Your task to perform on an android device: turn off priority inbox in the gmail app Image 0: 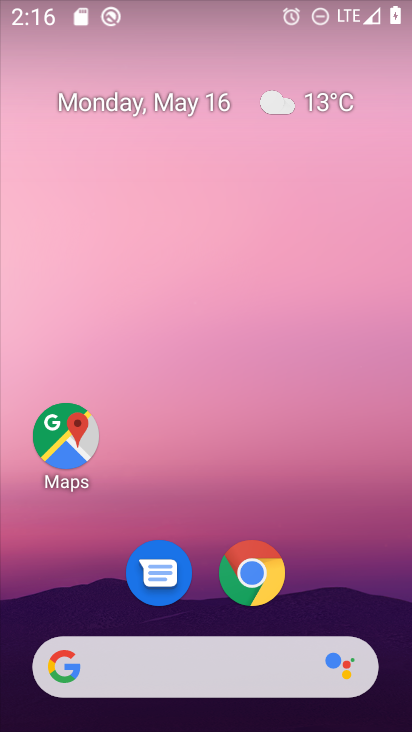
Step 0: drag from (190, 647) to (154, 306)
Your task to perform on an android device: turn off priority inbox in the gmail app Image 1: 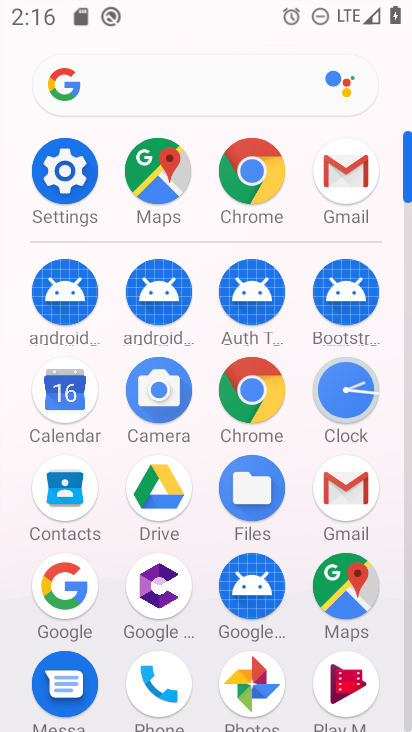
Step 1: click (323, 481)
Your task to perform on an android device: turn off priority inbox in the gmail app Image 2: 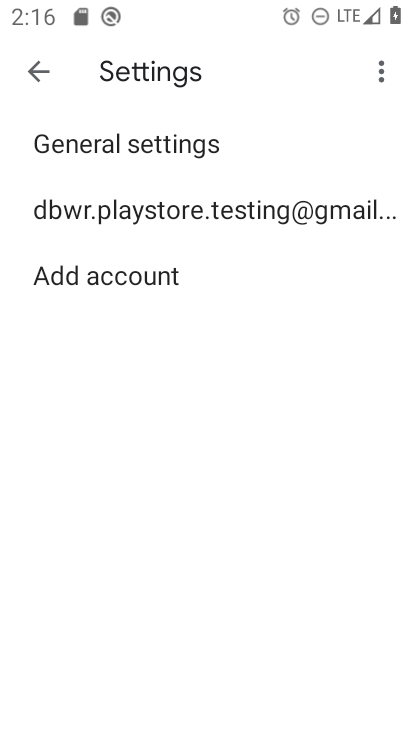
Step 2: click (168, 210)
Your task to perform on an android device: turn off priority inbox in the gmail app Image 3: 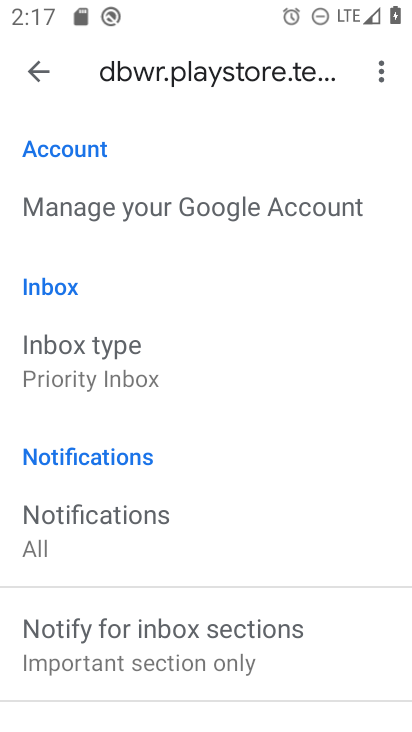
Step 3: click (140, 373)
Your task to perform on an android device: turn off priority inbox in the gmail app Image 4: 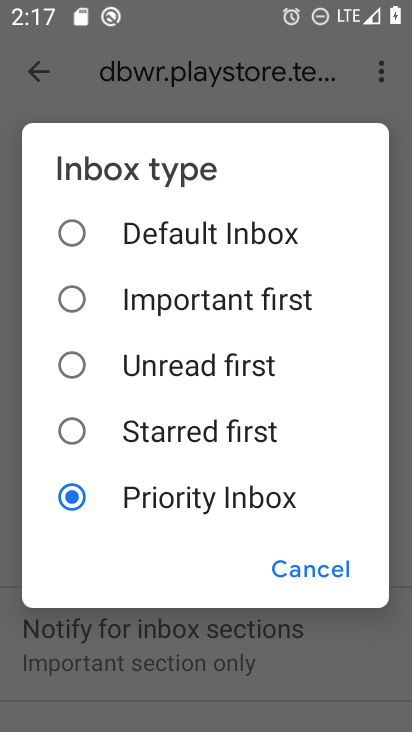
Step 4: click (115, 430)
Your task to perform on an android device: turn off priority inbox in the gmail app Image 5: 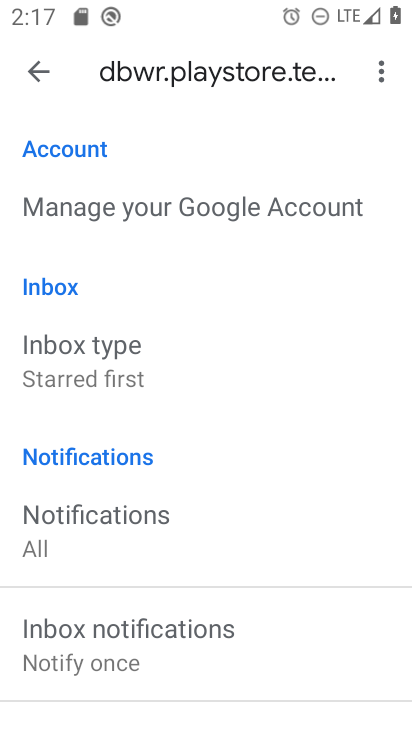
Step 5: task complete